Your task to perform on an android device: turn notification dots off Image 0: 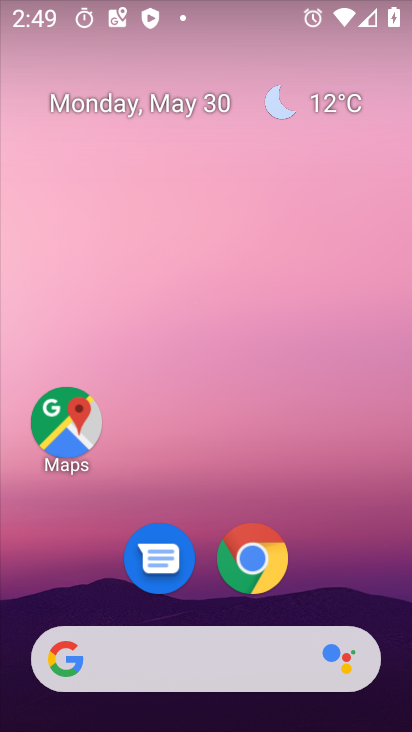
Step 0: drag from (200, 511) to (219, 75)
Your task to perform on an android device: turn notification dots off Image 1: 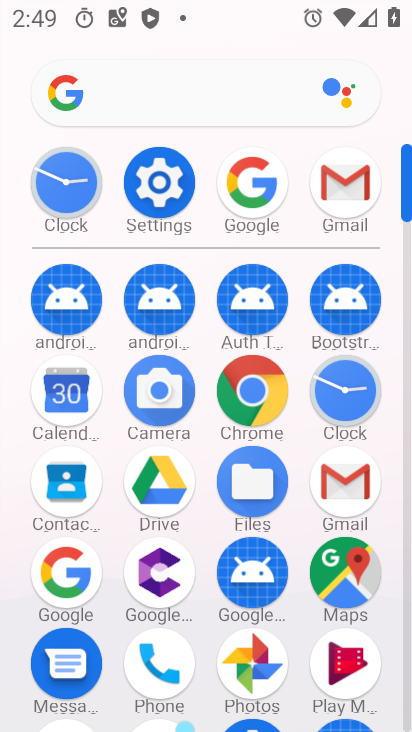
Step 1: click (160, 162)
Your task to perform on an android device: turn notification dots off Image 2: 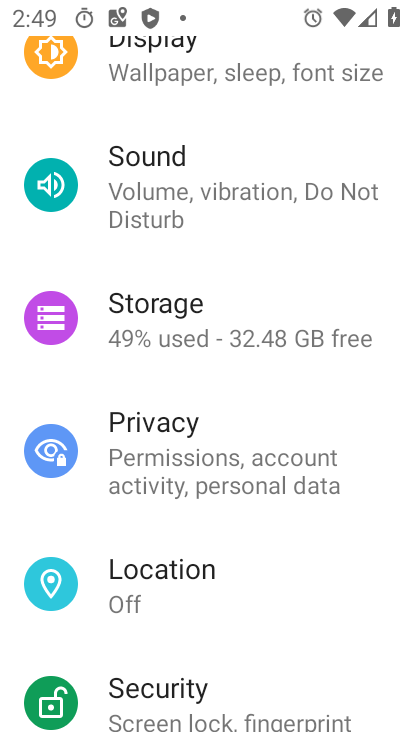
Step 2: drag from (250, 144) to (203, 618)
Your task to perform on an android device: turn notification dots off Image 3: 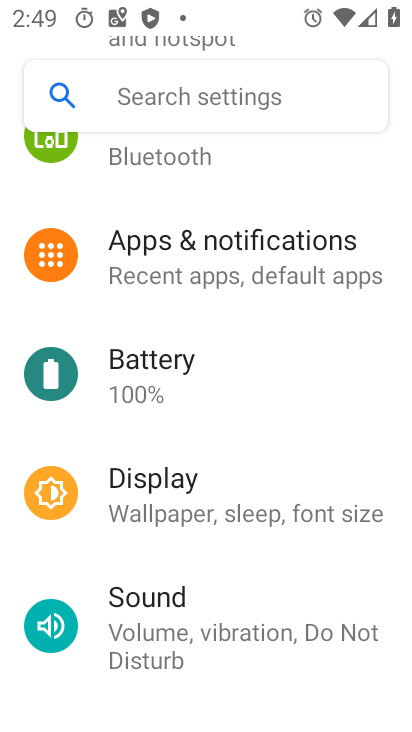
Step 3: click (219, 249)
Your task to perform on an android device: turn notification dots off Image 4: 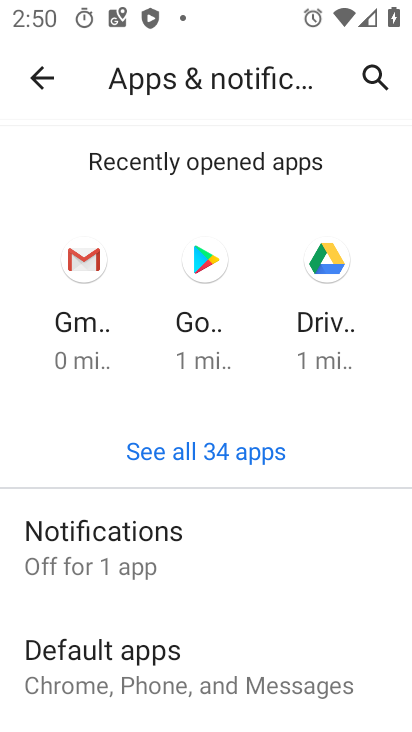
Step 4: click (213, 532)
Your task to perform on an android device: turn notification dots off Image 5: 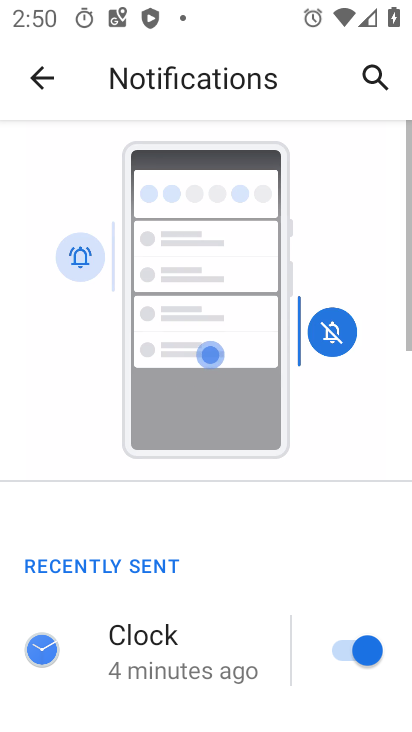
Step 5: drag from (168, 660) to (225, 261)
Your task to perform on an android device: turn notification dots off Image 6: 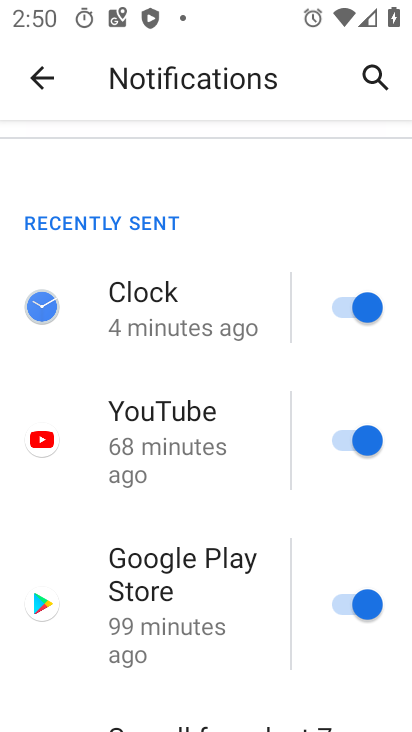
Step 6: drag from (188, 647) to (238, 122)
Your task to perform on an android device: turn notification dots off Image 7: 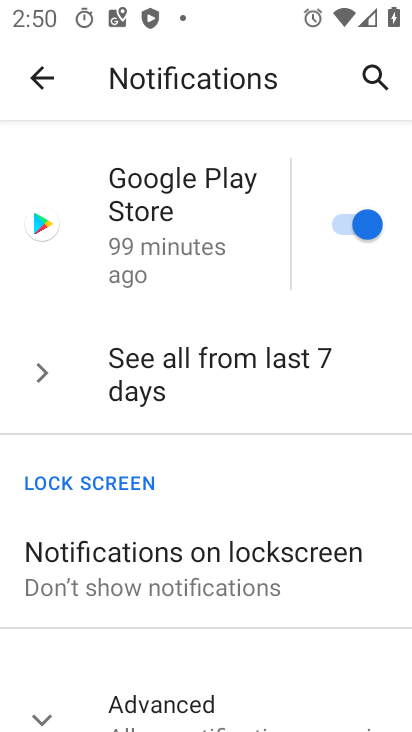
Step 7: drag from (189, 683) to (247, 180)
Your task to perform on an android device: turn notification dots off Image 8: 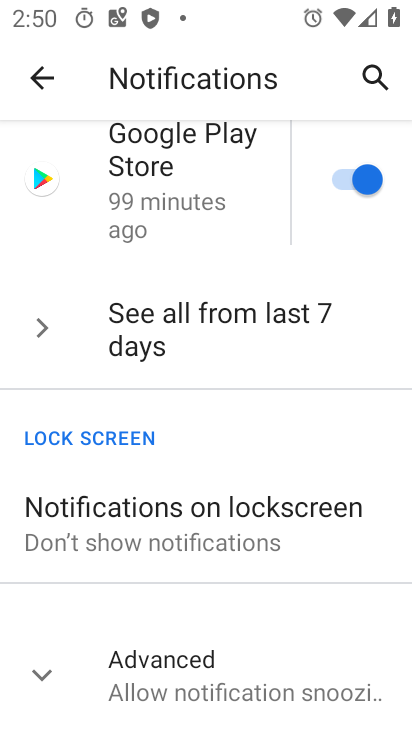
Step 8: click (180, 664)
Your task to perform on an android device: turn notification dots off Image 9: 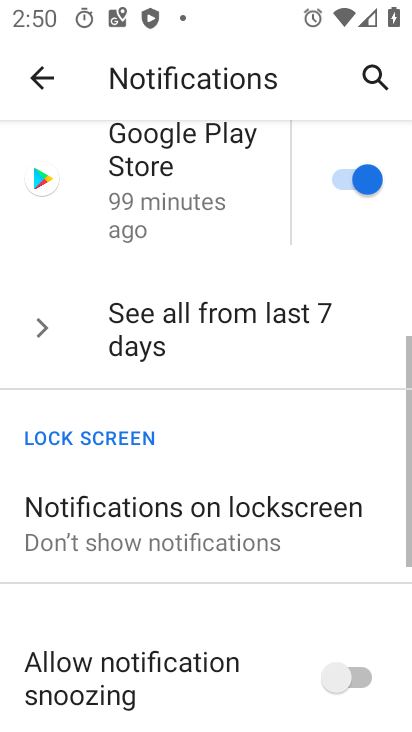
Step 9: drag from (172, 666) to (255, 218)
Your task to perform on an android device: turn notification dots off Image 10: 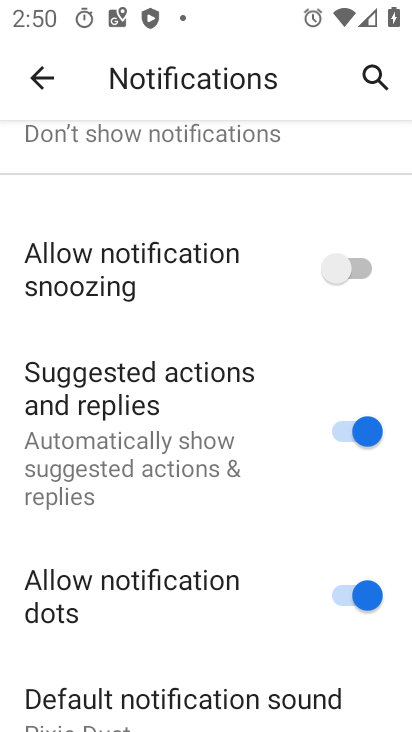
Step 10: click (387, 593)
Your task to perform on an android device: turn notification dots off Image 11: 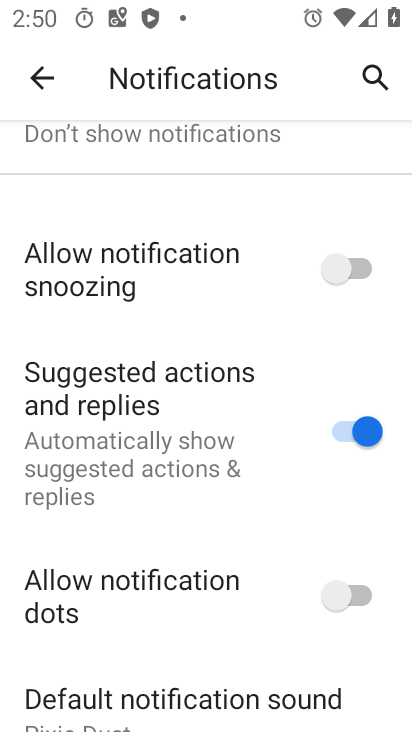
Step 11: task complete